Your task to perform on an android device: Open Google Chrome and click the shortcut for Amazon.com Image 0: 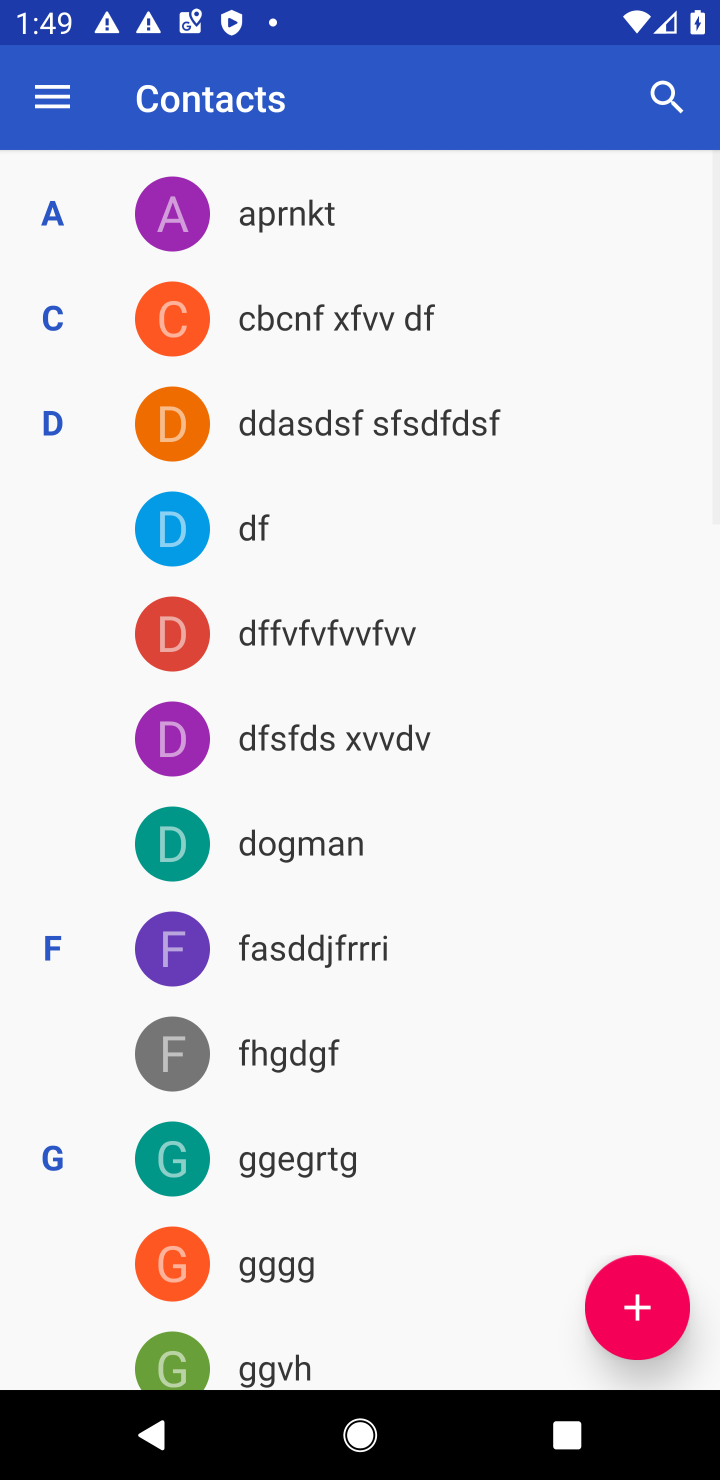
Step 0: press home button
Your task to perform on an android device: Open Google Chrome and click the shortcut for Amazon.com Image 1: 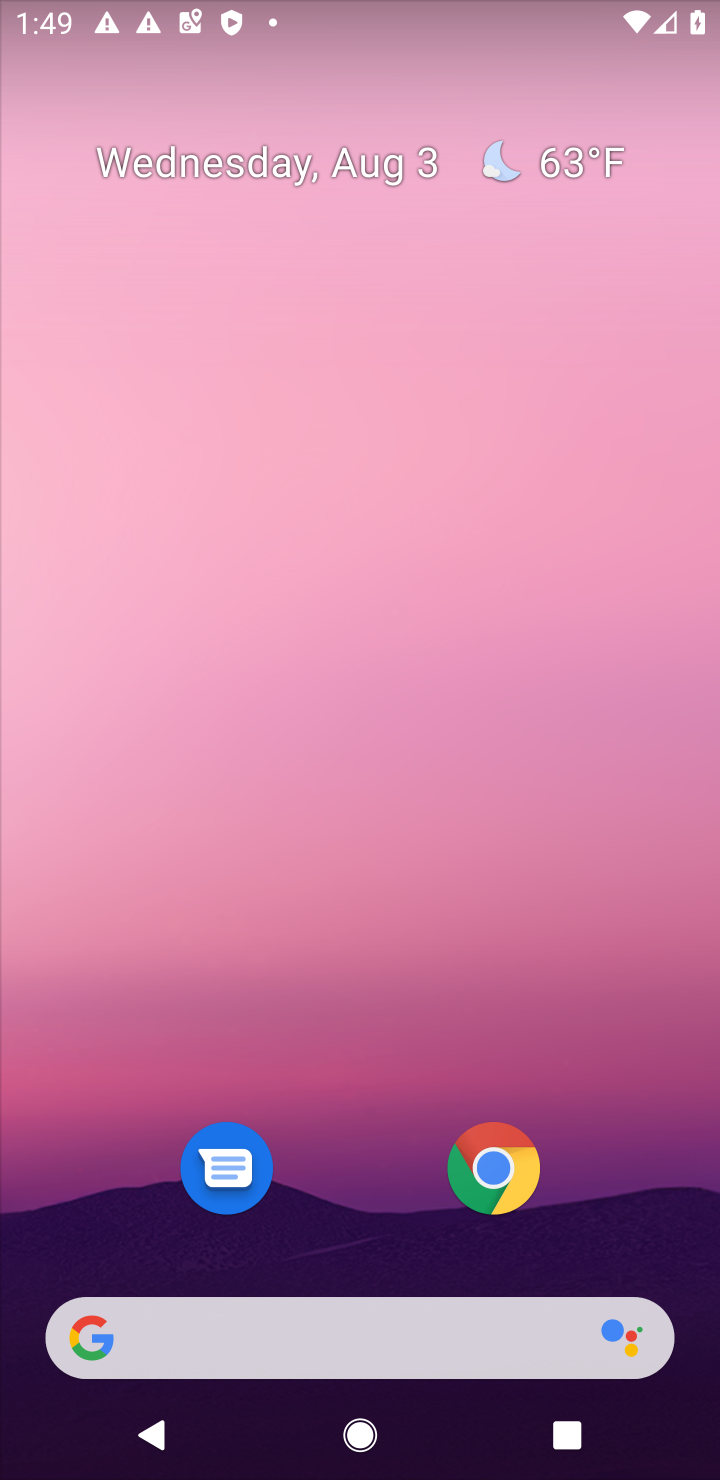
Step 1: click (495, 1167)
Your task to perform on an android device: Open Google Chrome and click the shortcut for Amazon.com Image 2: 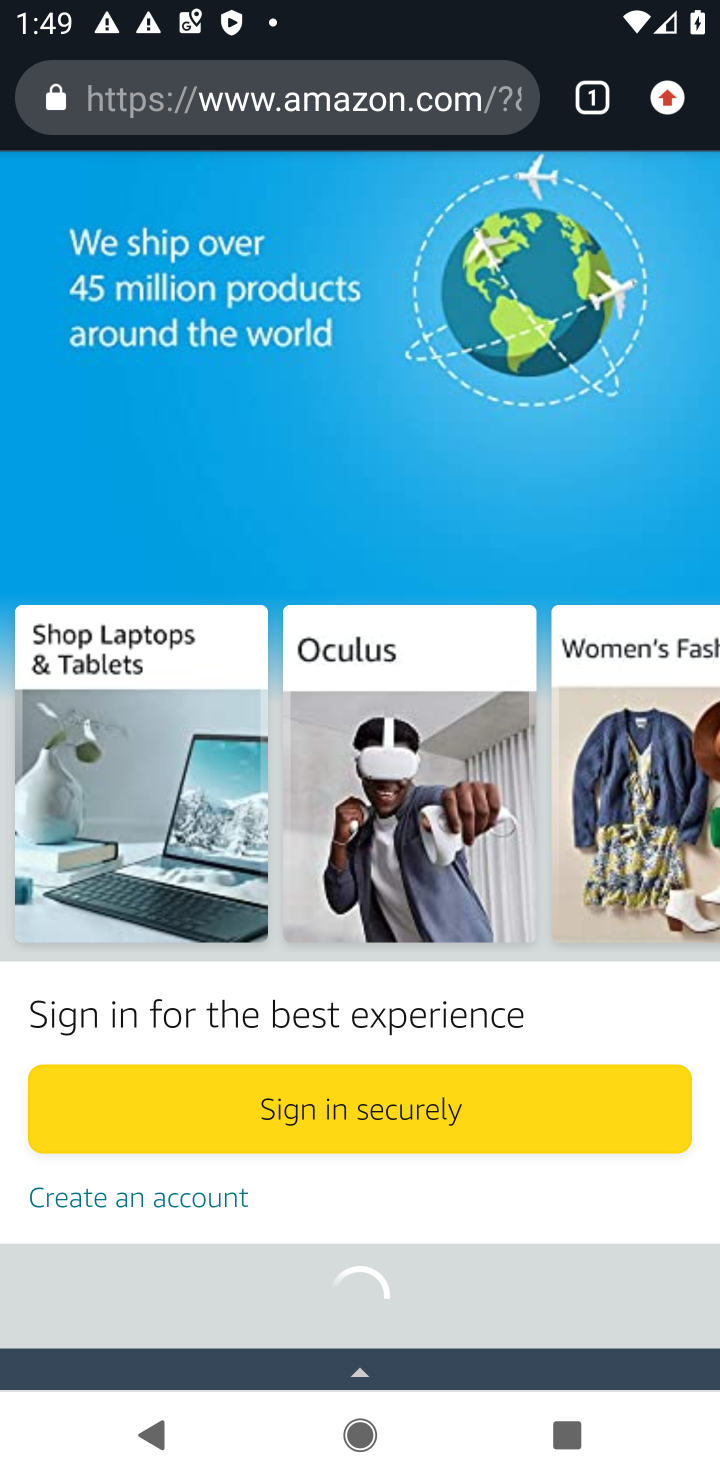
Step 2: click (667, 97)
Your task to perform on an android device: Open Google Chrome and click the shortcut for Amazon.com Image 3: 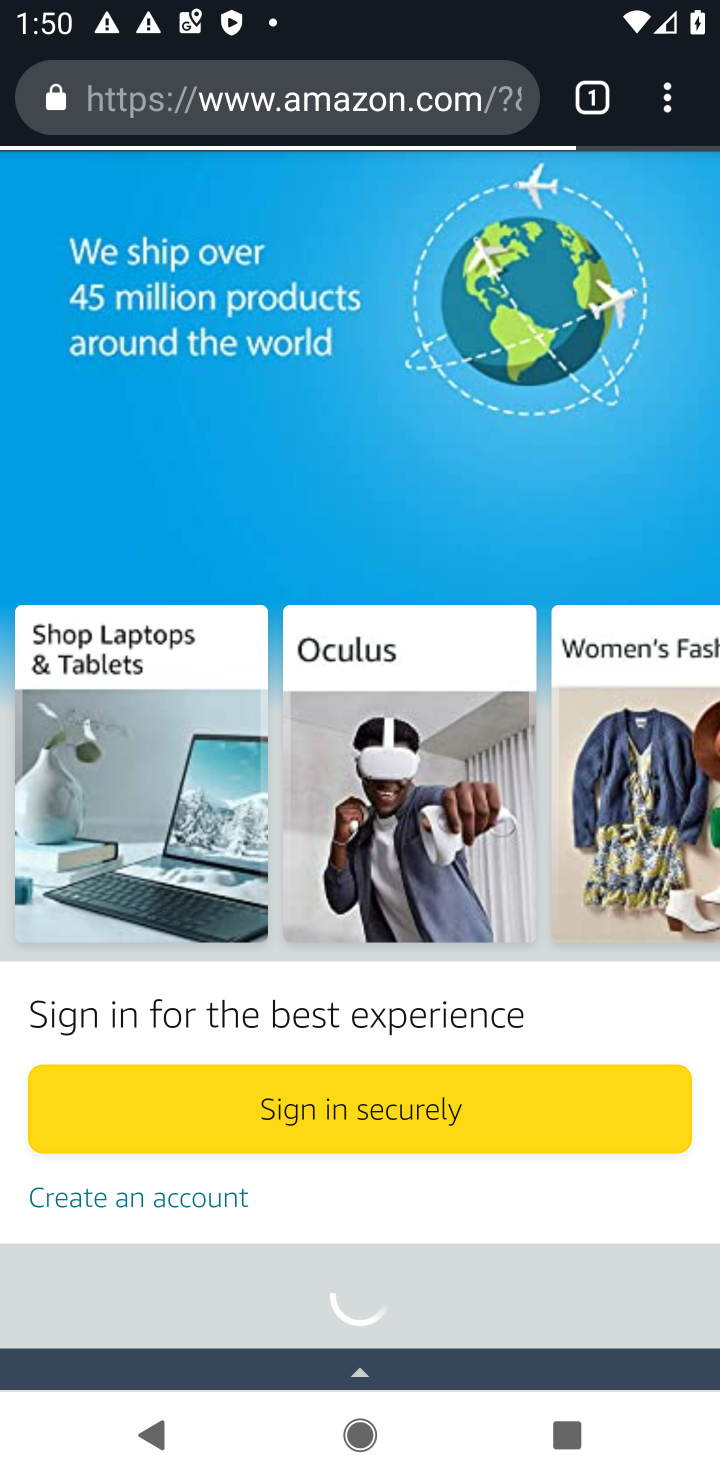
Step 3: click (662, 123)
Your task to perform on an android device: Open Google Chrome and click the shortcut for Amazon.com Image 4: 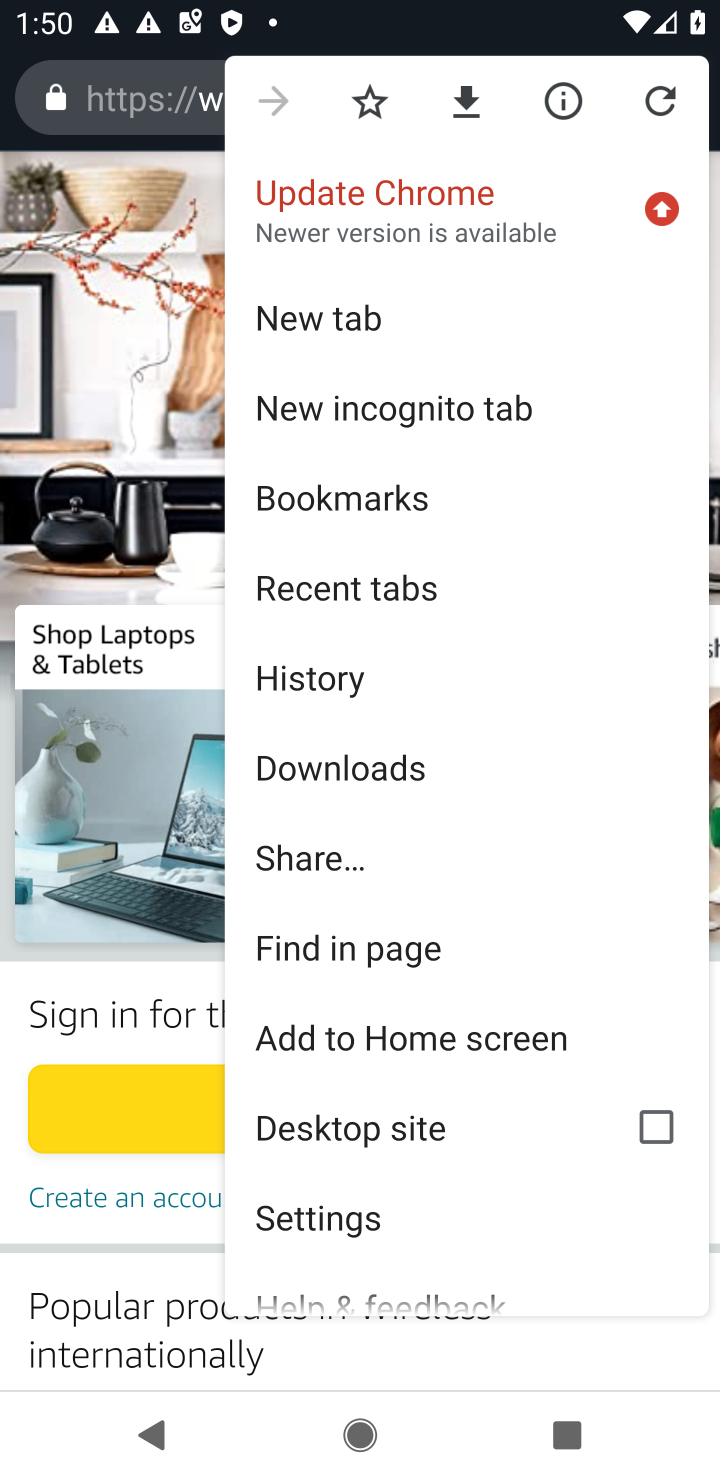
Step 4: click (286, 309)
Your task to perform on an android device: Open Google Chrome and click the shortcut for Amazon.com Image 5: 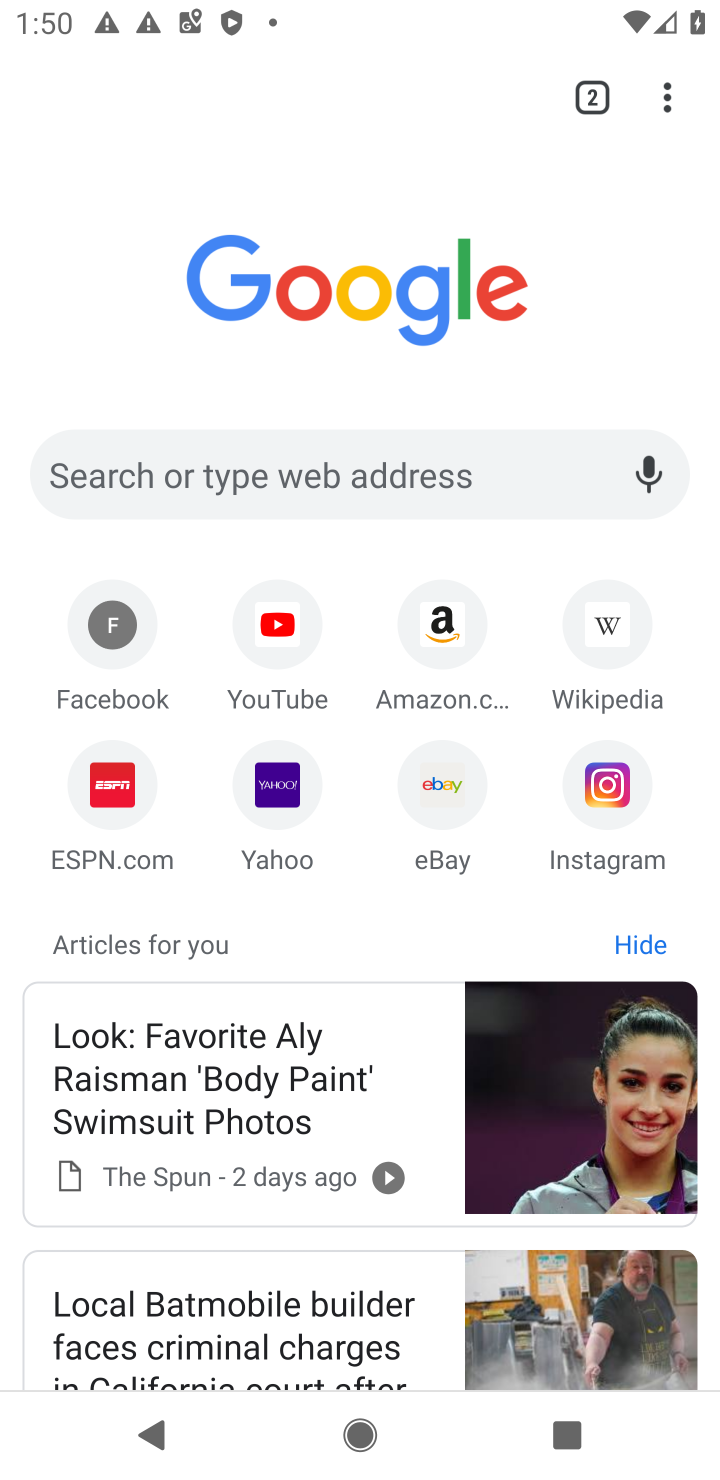
Step 5: click (445, 615)
Your task to perform on an android device: Open Google Chrome and click the shortcut for Amazon.com Image 6: 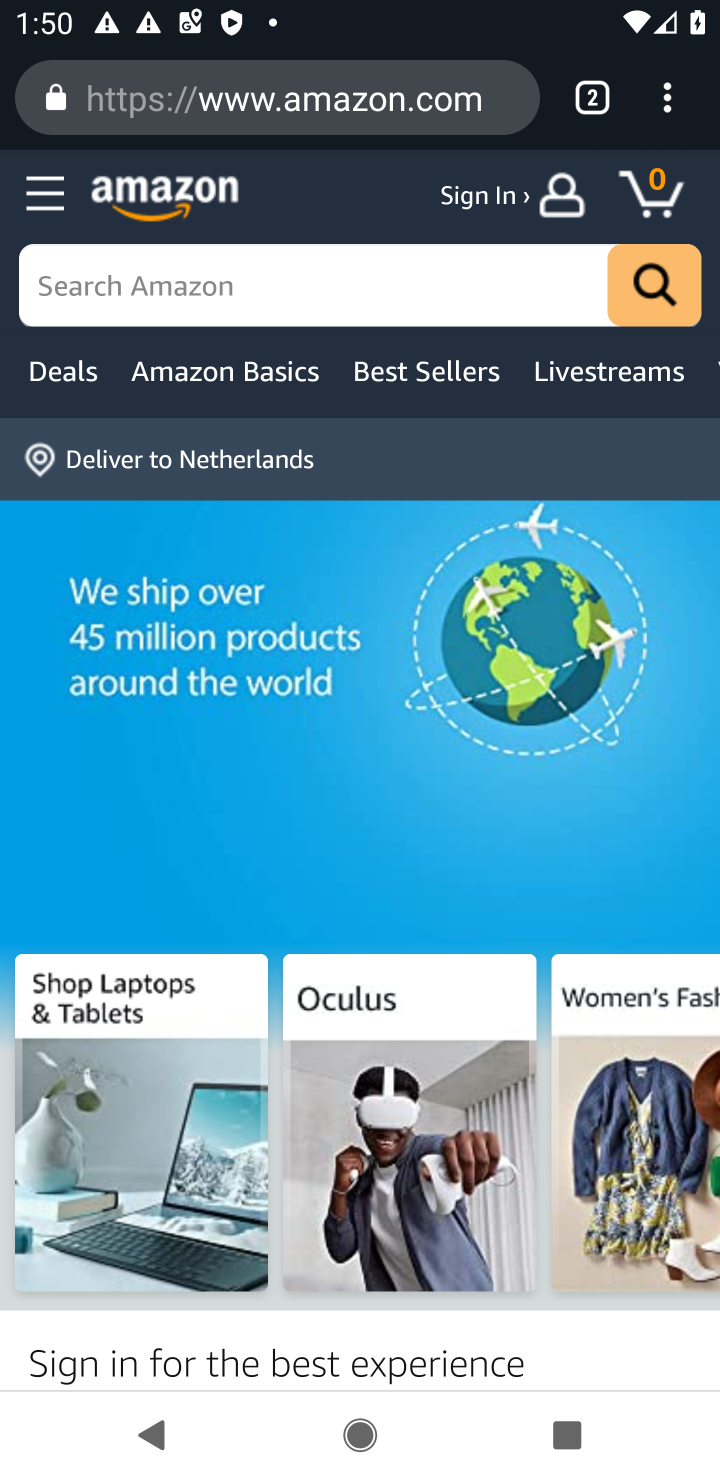
Step 6: task complete